Your task to perform on an android device: toggle airplane mode Image 0: 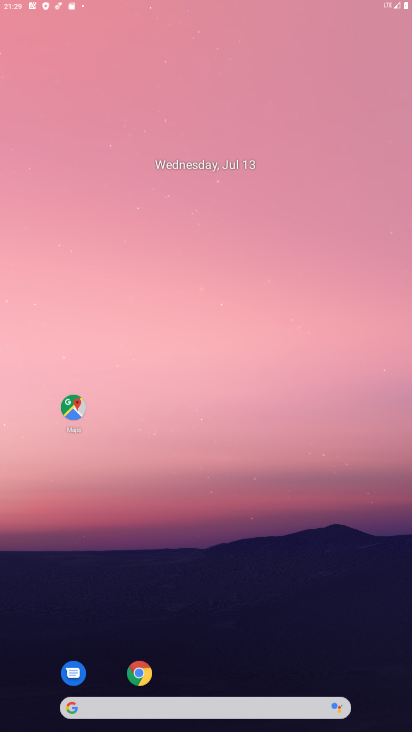
Step 0: click (124, 138)
Your task to perform on an android device: toggle airplane mode Image 1: 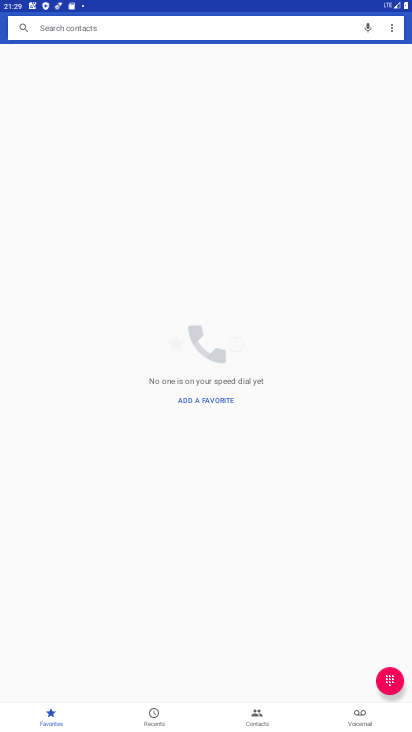
Step 1: press home button
Your task to perform on an android device: toggle airplane mode Image 2: 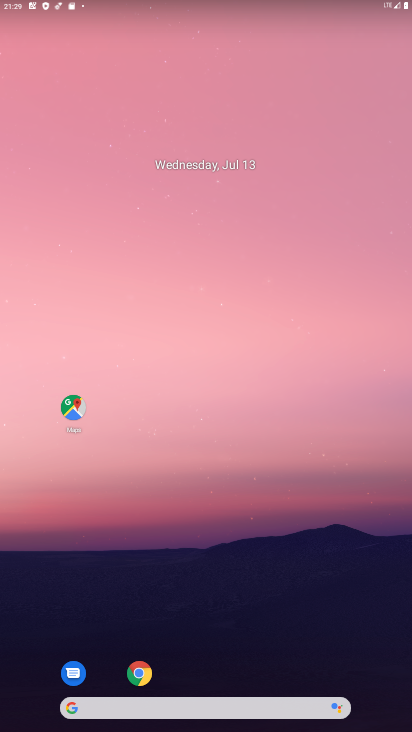
Step 2: drag from (239, 660) to (272, 6)
Your task to perform on an android device: toggle airplane mode Image 3: 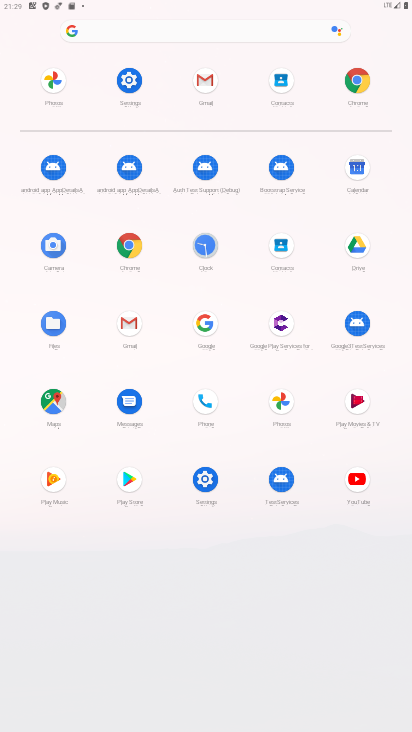
Step 3: click (121, 90)
Your task to perform on an android device: toggle airplane mode Image 4: 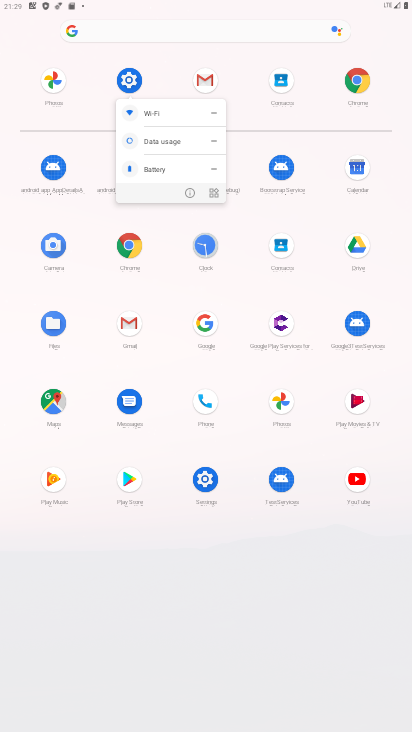
Step 4: click (180, 192)
Your task to perform on an android device: toggle airplane mode Image 5: 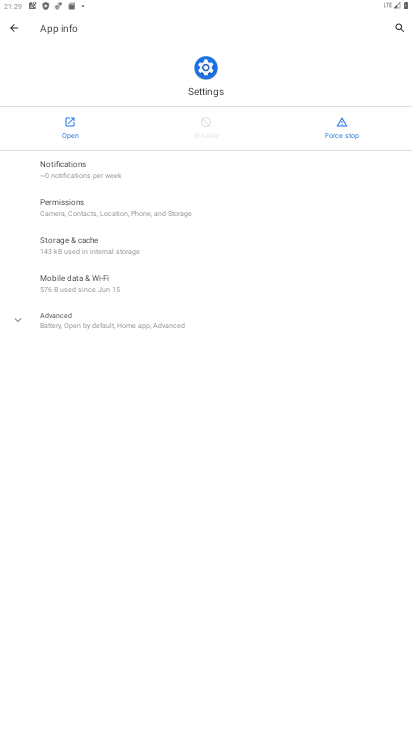
Step 5: click (57, 128)
Your task to perform on an android device: toggle airplane mode Image 6: 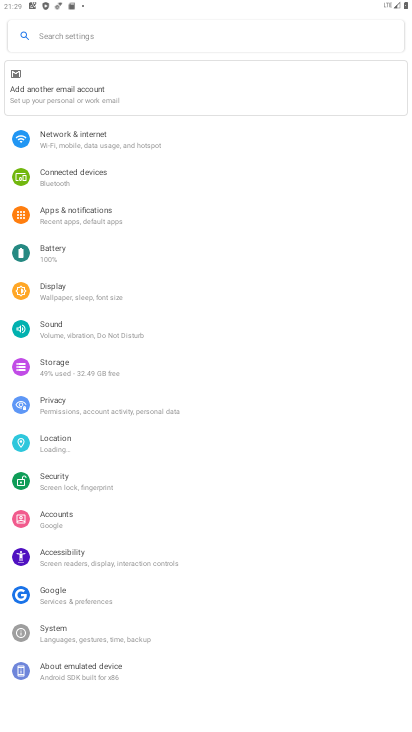
Step 6: click (115, 133)
Your task to perform on an android device: toggle airplane mode Image 7: 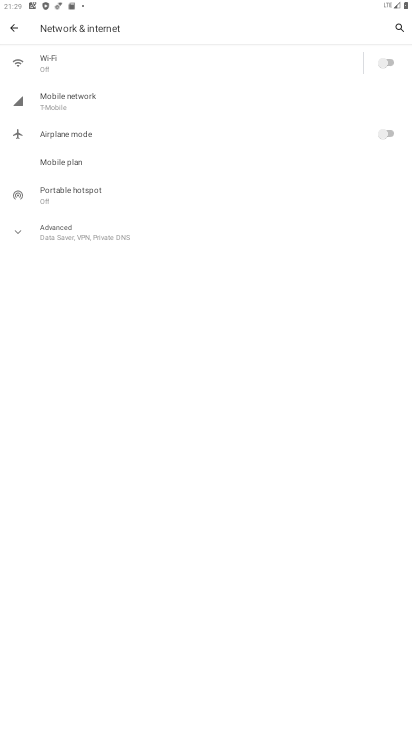
Step 7: click (90, 133)
Your task to perform on an android device: toggle airplane mode Image 8: 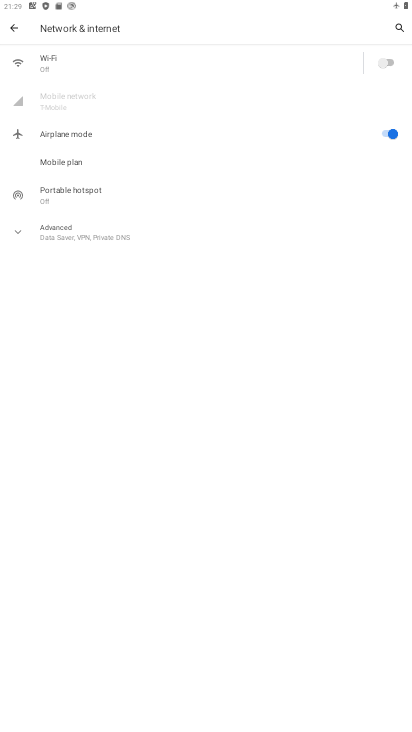
Step 8: task complete